Your task to perform on an android device: Set the phone to "Do not disturb". Image 0: 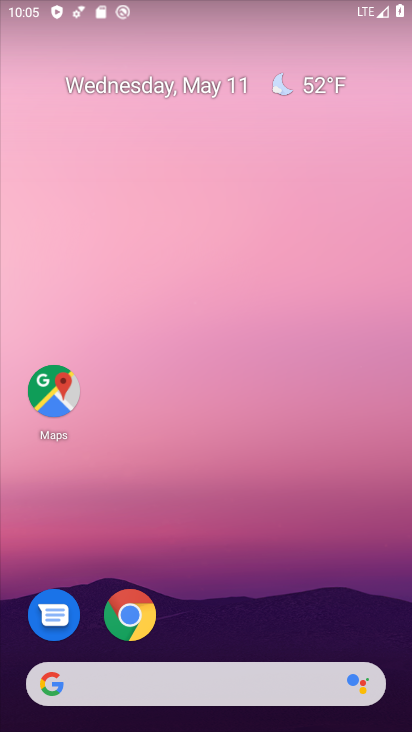
Step 0: drag from (260, 616) to (189, 160)
Your task to perform on an android device: Set the phone to "Do not disturb". Image 1: 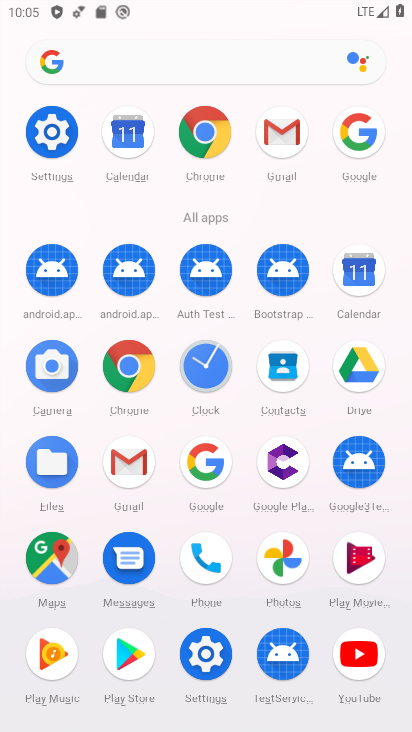
Step 1: click (51, 132)
Your task to perform on an android device: Set the phone to "Do not disturb". Image 2: 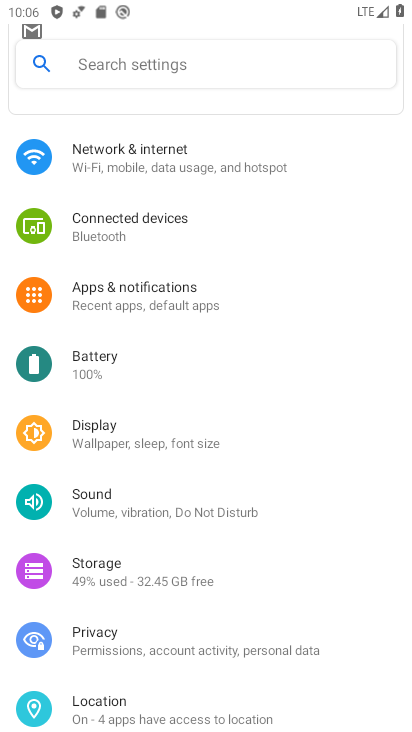
Step 2: click (146, 513)
Your task to perform on an android device: Set the phone to "Do not disturb". Image 3: 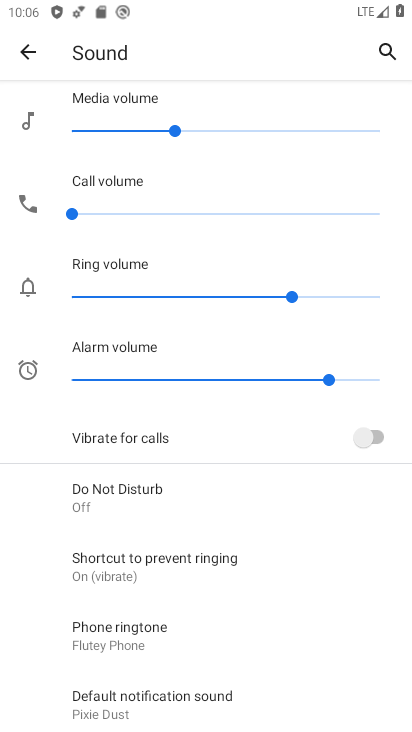
Step 3: drag from (192, 601) to (219, 488)
Your task to perform on an android device: Set the phone to "Do not disturb". Image 4: 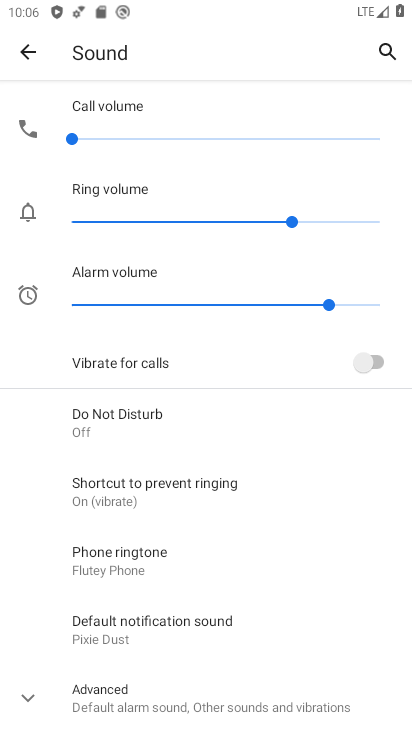
Step 4: click (143, 414)
Your task to perform on an android device: Set the phone to "Do not disturb". Image 5: 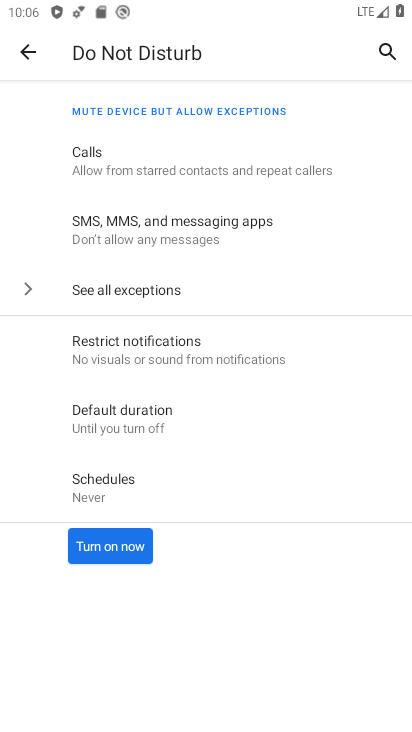
Step 5: click (128, 550)
Your task to perform on an android device: Set the phone to "Do not disturb". Image 6: 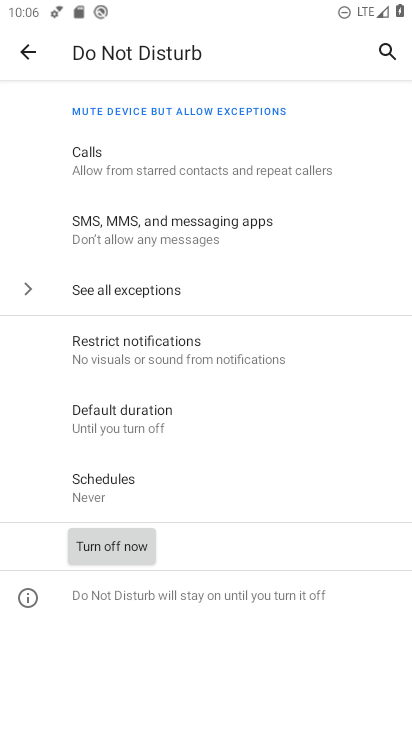
Step 6: task complete